Your task to perform on an android device: Show me popular videos on Youtube Image 0: 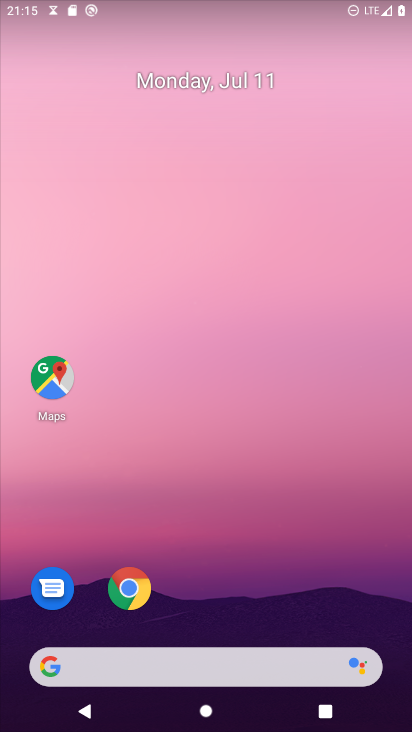
Step 0: press home button
Your task to perform on an android device: Show me popular videos on Youtube Image 1: 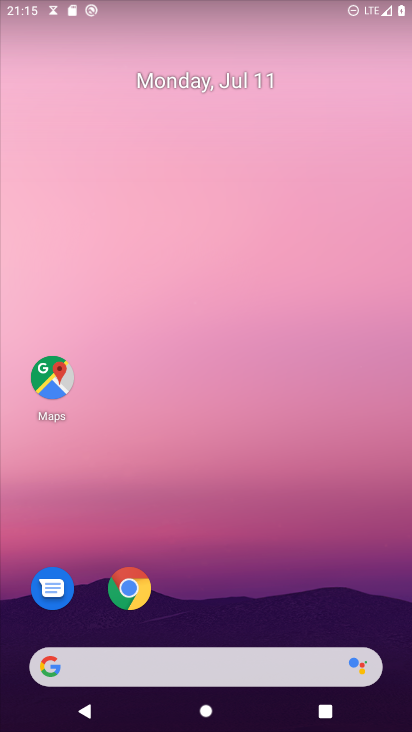
Step 1: drag from (233, 628) to (267, 0)
Your task to perform on an android device: Show me popular videos on Youtube Image 2: 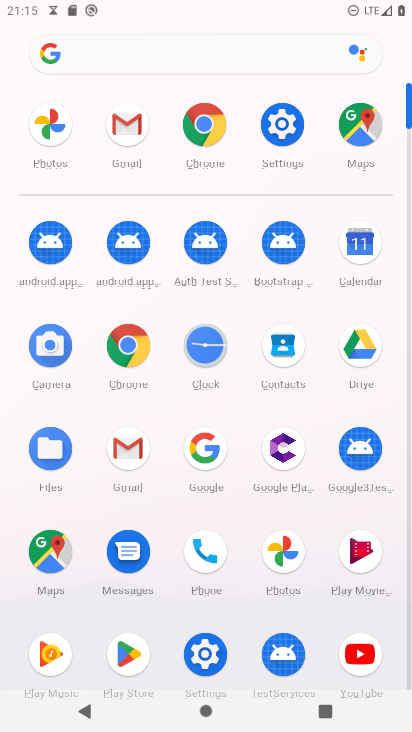
Step 2: click (362, 651)
Your task to perform on an android device: Show me popular videos on Youtube Image 3: 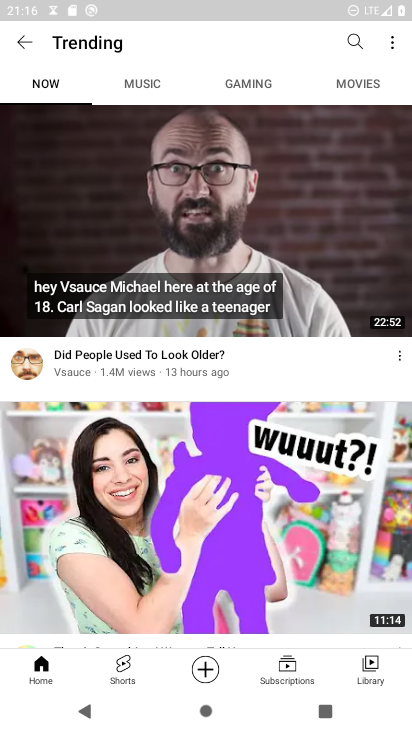
Step 3: click (22, 41)
Your task to perform on an android device: Show me popular videos on Youtube Image 4: 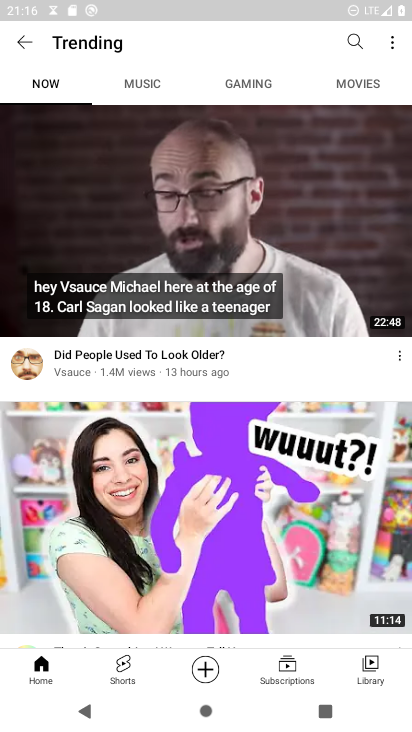
Step 4: click (40, 663)
Your task to perform on an android device: Show me popular videos on Youtube Image 5: 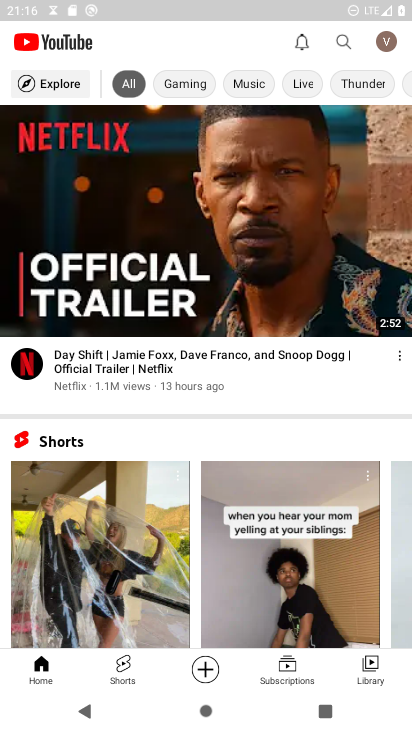
Step 5: click (65, 81)
Your task to perform on an android device: Show me popular videos on Youtube Image 6: 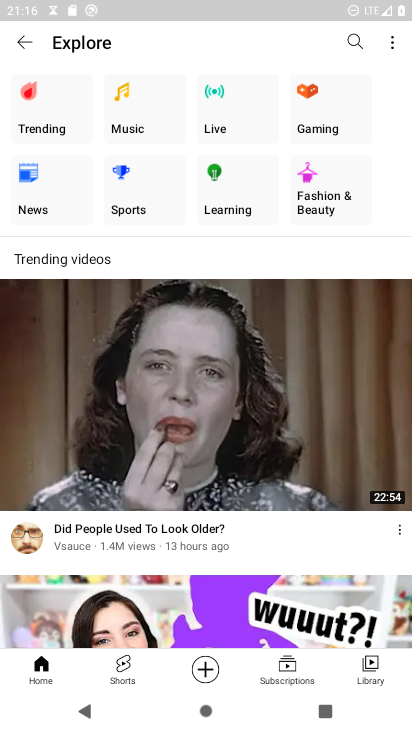
Step 6: click (38, 127)
Your task to perform on an android device: Show me popular videos on Youtube Image 7: 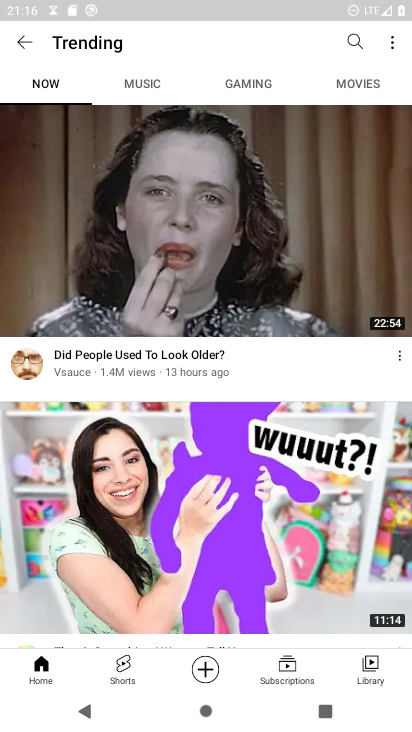
Step 7: task complete